Your task to perform on an android device: Open CNN.com Image 0: 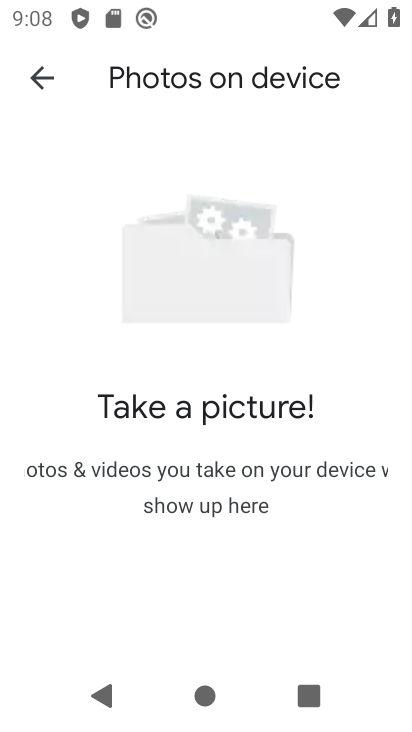
Step 0: press back button
Your task to perform on an android device: Open CNN.com Image 1: 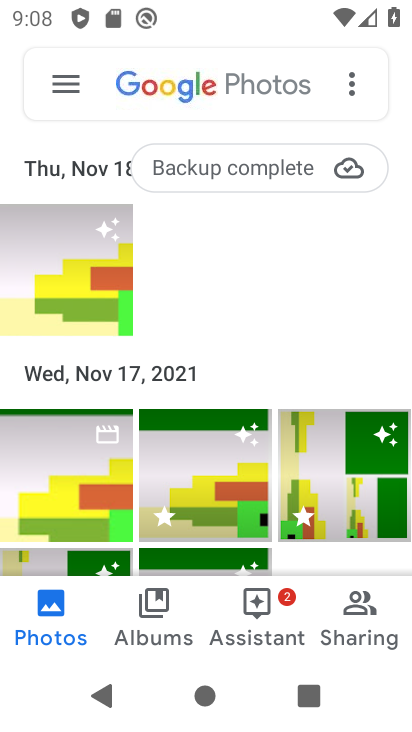
Step 1: press back button
Your task to perform on an android device: Open CNN.com Image 2: 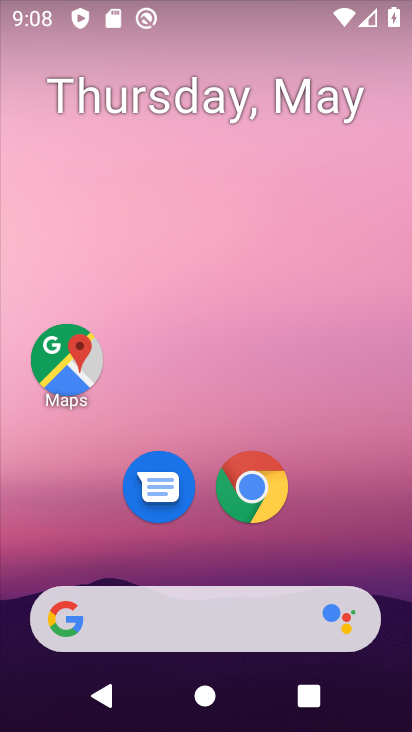
Step 2: click (243, 485)
Your task to perform on an android device: Open CNN.com Image 3: 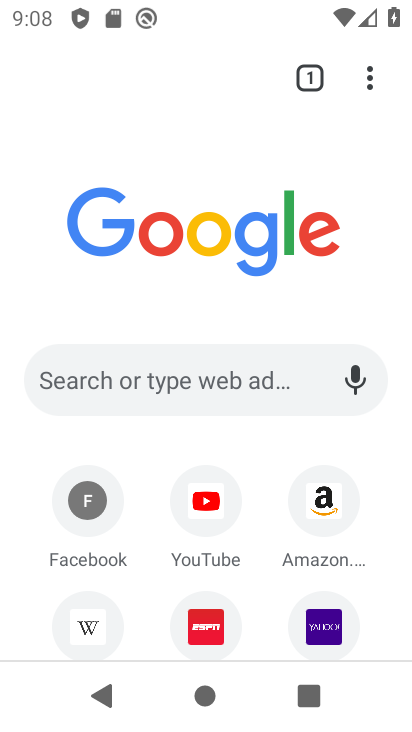
Step 3: drag from (214, 606) to (230, 651)
Your task to perform on an android device: Open CNN.com Image 4: 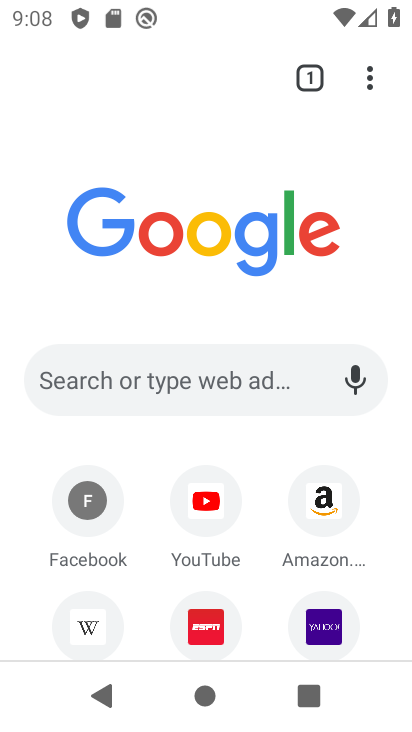
Step 4: click (164, 388)
Your task to perform on an android device: Open CNN.com Image 5: 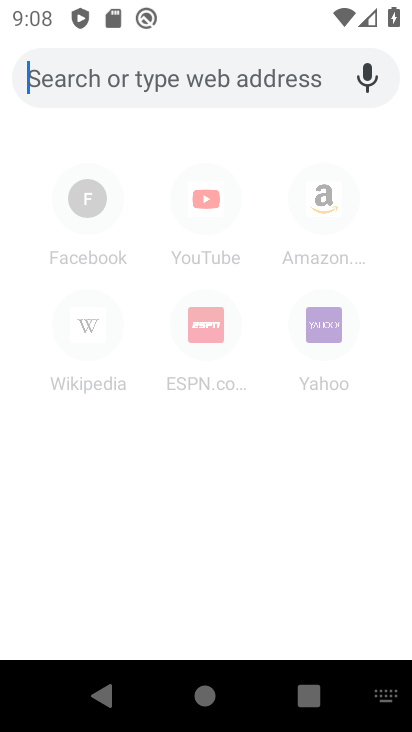
Step 5: type "cnn.com"
Your task to perform on an android device: Open CNN.com Image 6: 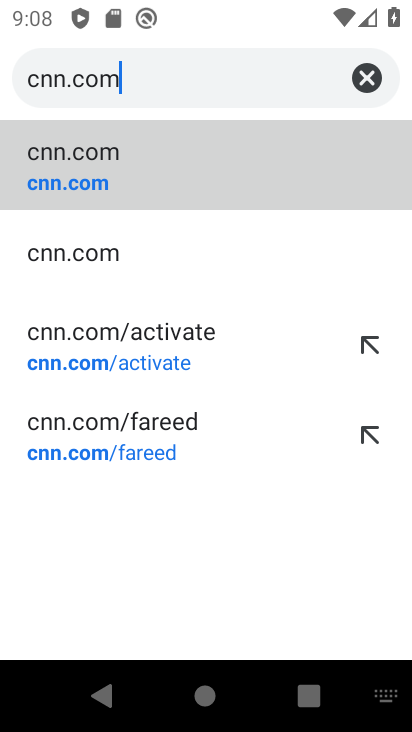
Step 6: click (127, 158)
Your task to perform on an android device: Open CNN.com Image 7: 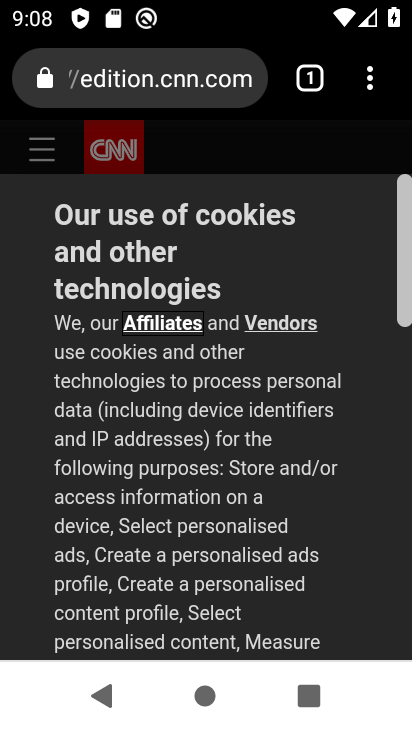
Step 7: drag from (219, 563) to (311, 63)
Your task to perform on an android device: Open CNN.com Image 8: 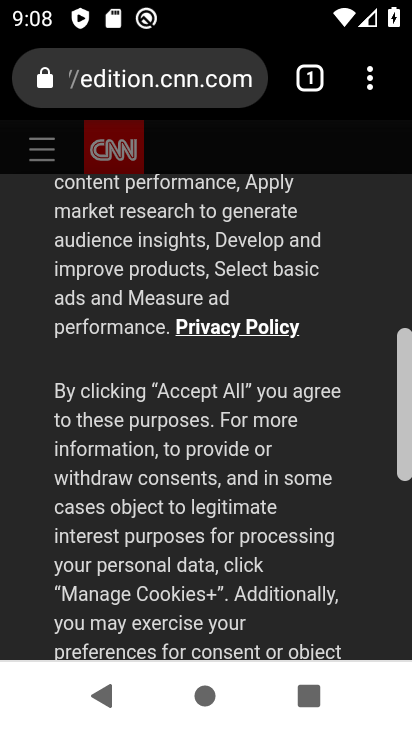
Step 8: drag from (210, 642) to (287, 143)
Your task to perform on an android device: Open CNN.com Image 9: 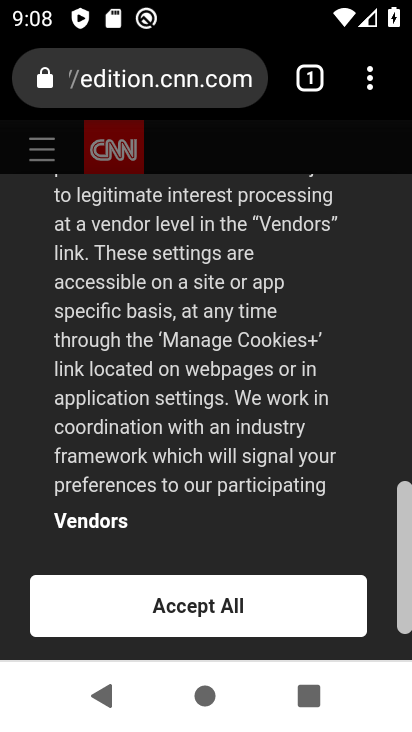
Step 9: click (222, 612)
Your task to perform on an android device: Open CNN.com Image 10: 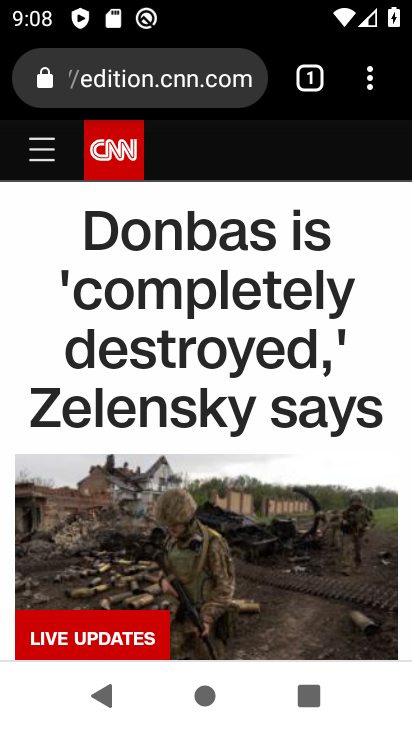
Step 10: task complete